Your task to perform on an android device: Go to Google maps Image 0: 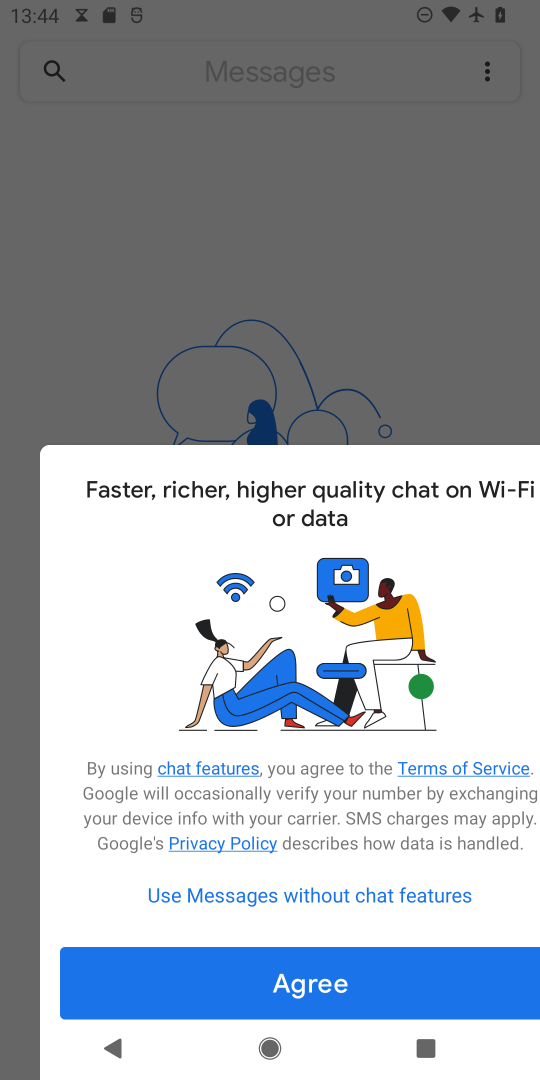
Step 0: press home button
Your task to perform on an android device: Go to Google maps Image 1: 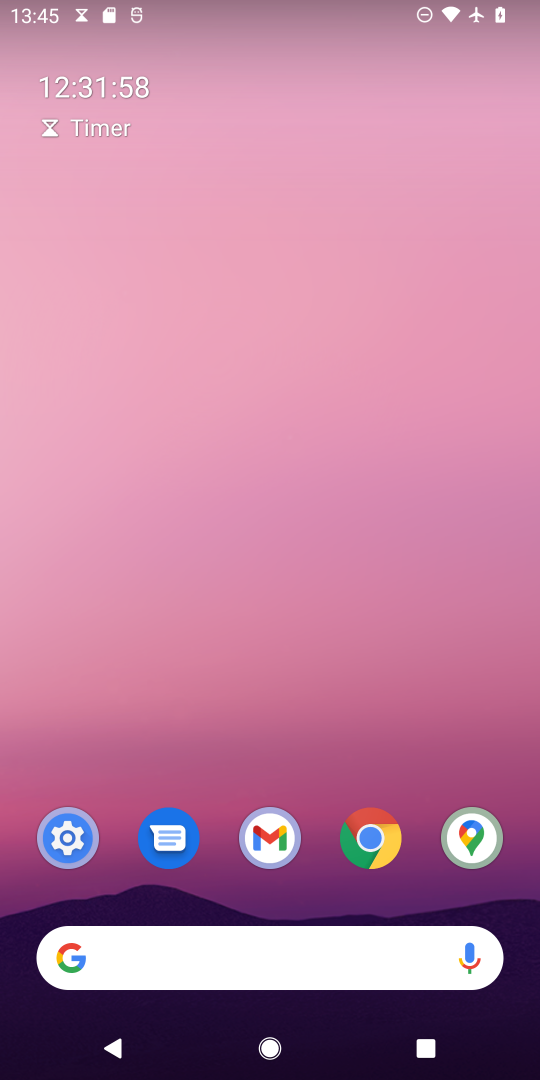
Step 1: click (464, 850)
Your task to perform on an android device: Go to Google maps Image 2: 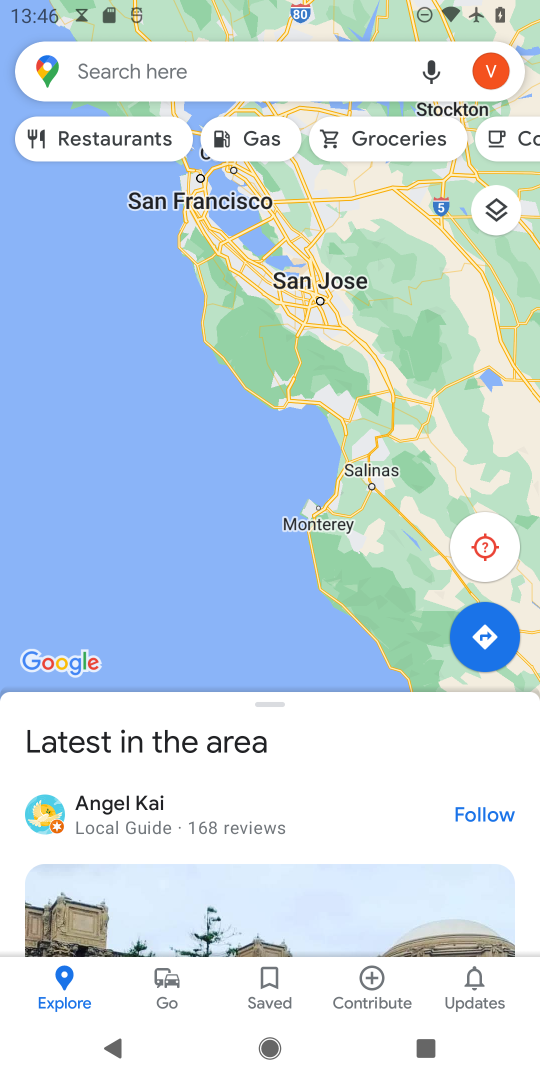
Step 2: task complete